Your task to perform on an android device: Open ESPN.com Image 0: 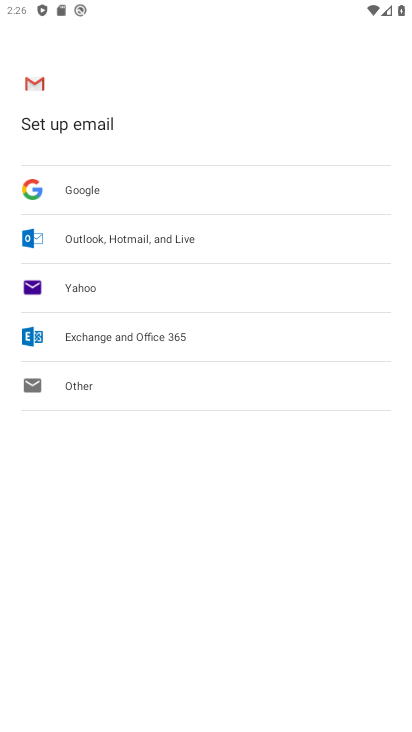
Step 0: press home button
Your task to perform on an android device: Open ESPN.com Image 1: 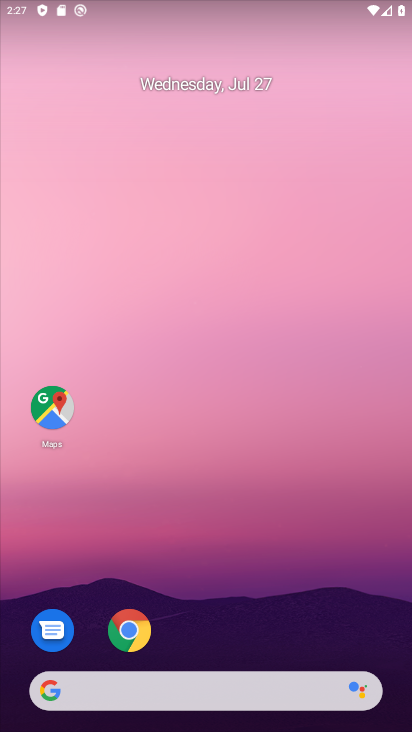
Step 1: click (50, 689)
Your task to perform on an android device: Open ESPN.com Image 2: 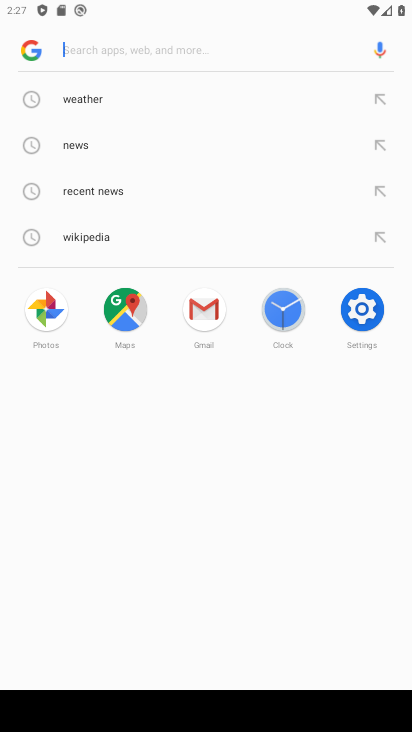
Step 2: type "ESPN.com"
Your task to perform on an android device: Open ESPN.com Image 3: 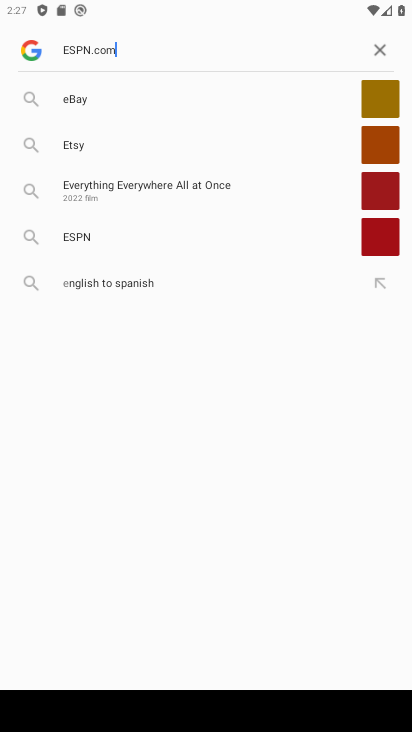
Step 3: press enter
Your task to perform on an android device: Open ESPN.com Image 4: 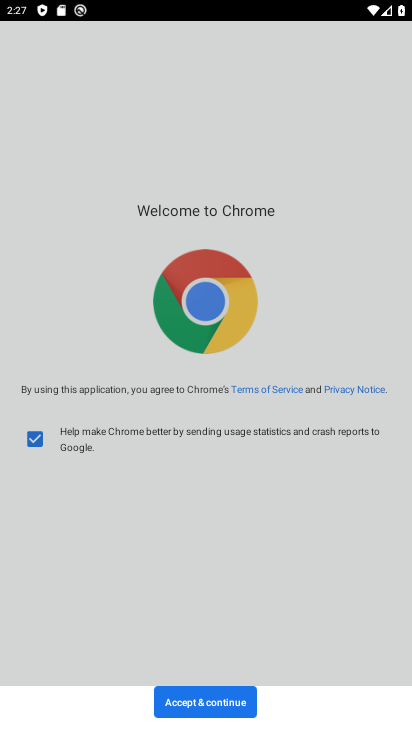
Step 4: click (209, 707)
Your task to perform on an android device: Open ESPN.com Image 5: 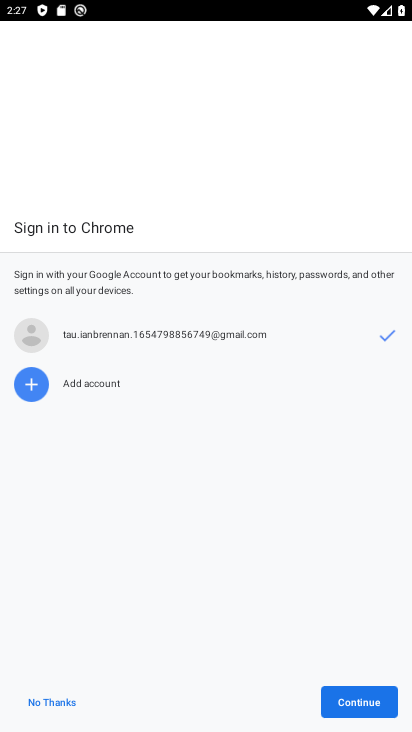
Step 5: click (343, 702)
Your task to perform on an android device: Open ESPN.com Image 6: 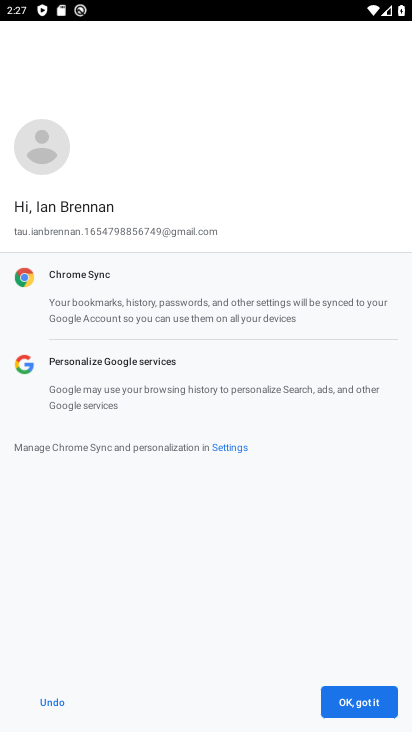
Step 6: click (343, 702)
Your task to perform on an android device: Open ESPN.com Image 7: 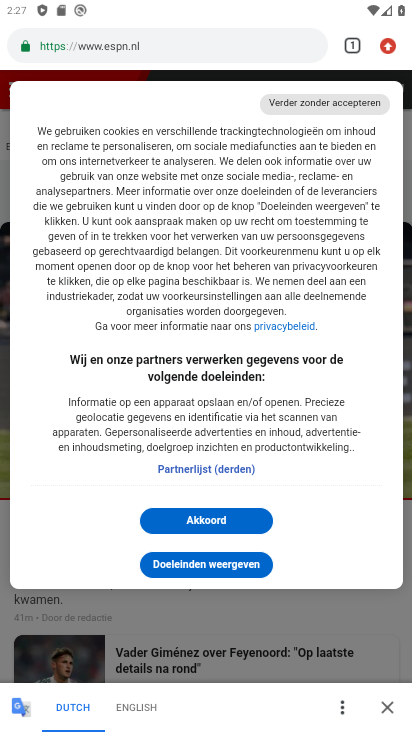
Step 7: click (253, 522)
Your task to perform on an android device: Open ESPN.com Image 8: 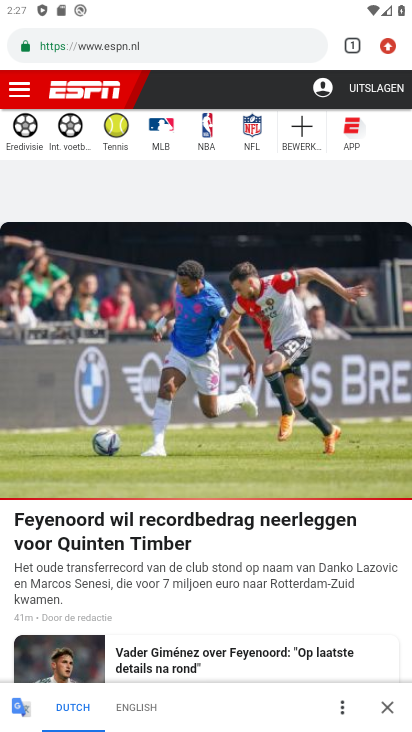
Step 8: task complete